Your task to perform on an android device: remove spam from my inbox in the gmail app Image 0: 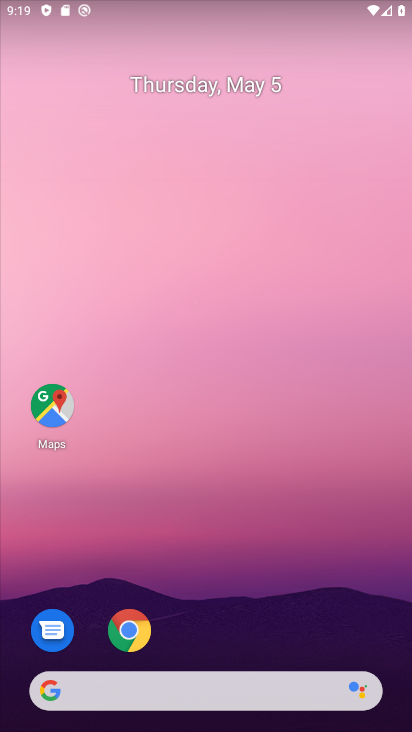
Step 0: drag from (231, 577) to (208, 116)
Your task to perform on an android device: remove spam from my inbox in the gmail app Image 1: 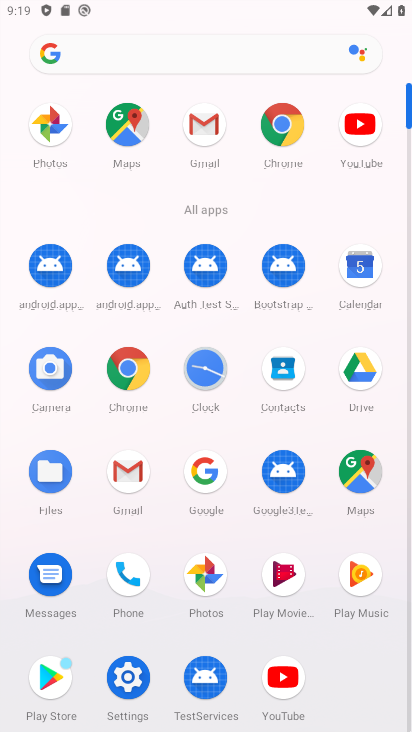
Step 1: click (204, 139)
Your task to perform on an android device: remove spam from my inbox in the gmail app Image 2: 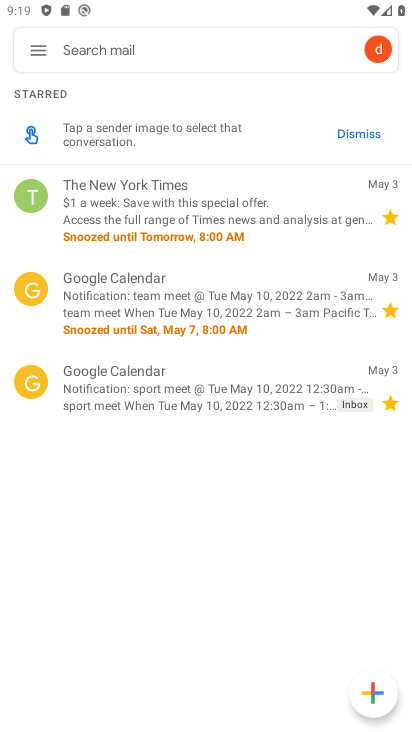
Step 2: click (39, 49)
Your task to perform on an android device: remove spam from my inbox in the gmail app Image 3: 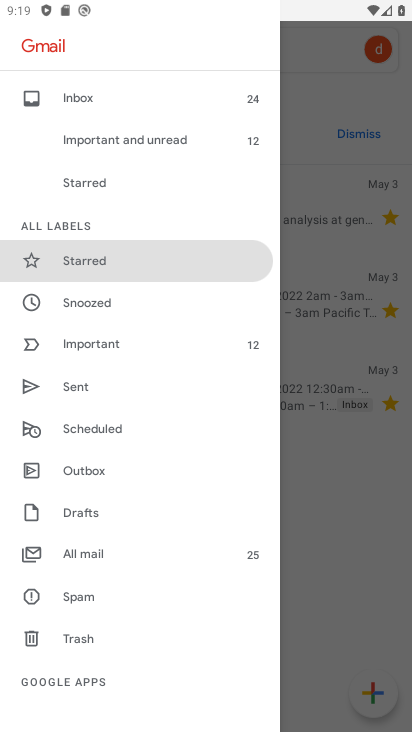
Step 3: click (84, 593)
Your task to perform on an android device: remove spam from my inbox in the gmail app Image 4: 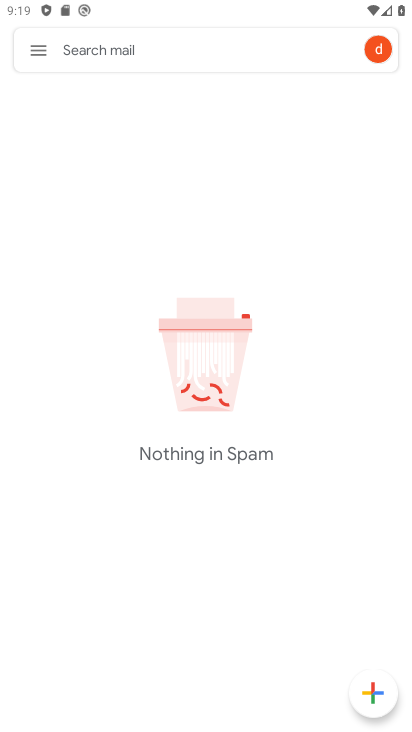
Step 4: task complete